Your task to perform on an android device: turn on improve location accuracy Image 0: 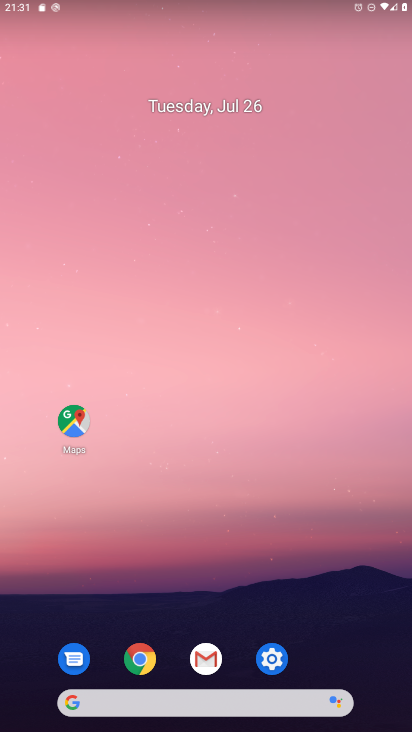
Step 0: press home button
Your task to perform on an android device: turn on improve location accuracy Image 1: 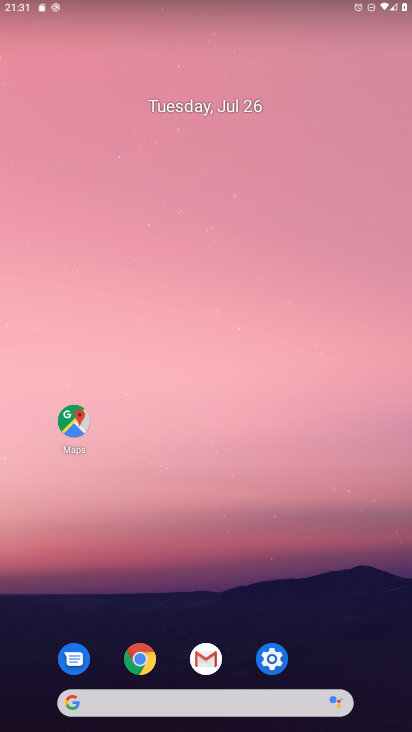
Step 1: click (271, 647)
Your task to perform on an android device: turn on improve location accuracy Image 2: 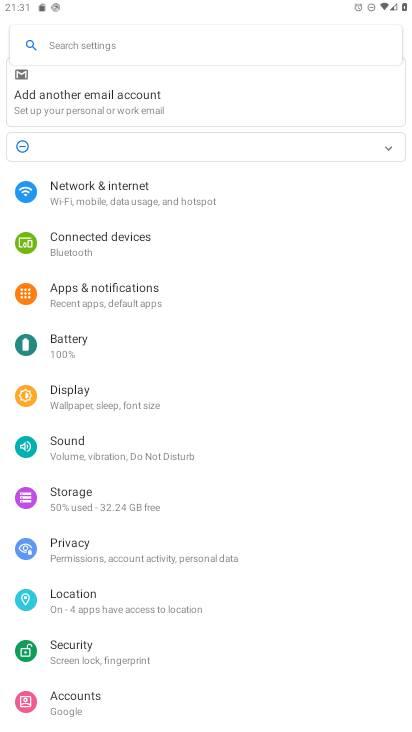
Step 2: click (104, 43)
Your task to perform on an android device: turn on improve location accuracy Image 3: 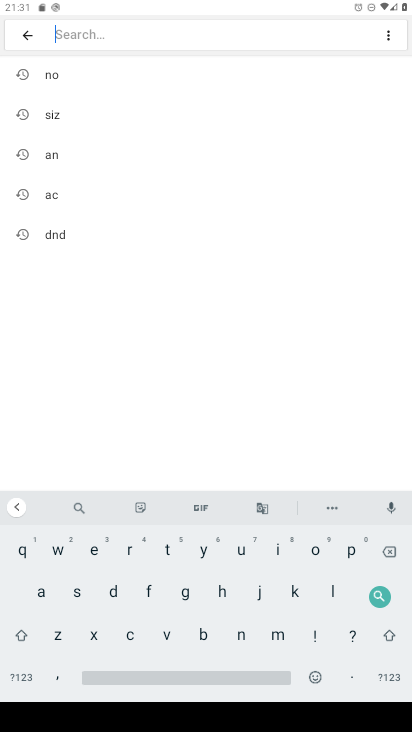
Step 3: click (37, 587)
Your task to perform on an android device: turn on improve location accuracy Image 4: 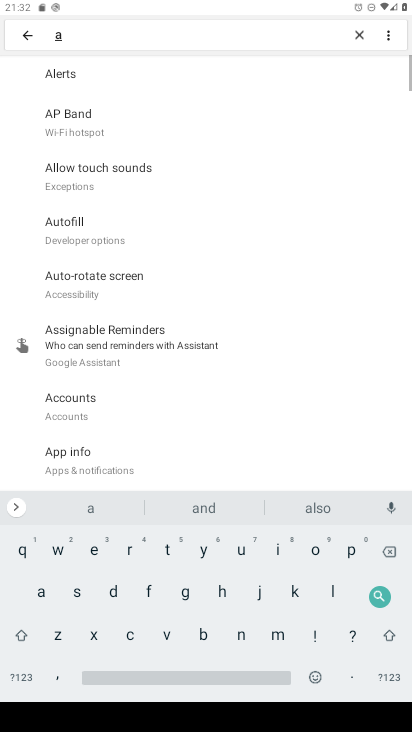
Step 4: click (121, 634)
Your task to perform on an android device: turn on improve location accuracy Image 5: 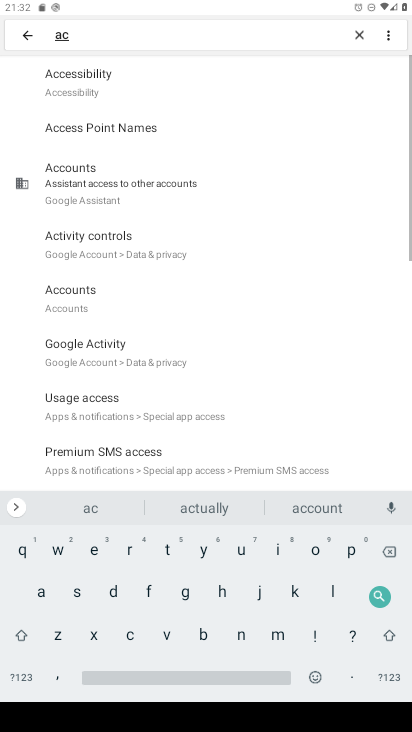
Step 5: click (123, 78)
Your task to perform on an android device: turn on improve location accuracy Image 6: 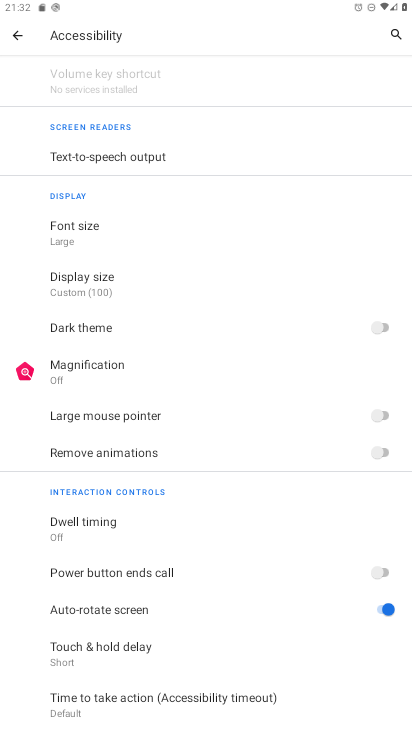
Step 6: click (16, 45)
Your task to perform on an android device: turn on improve location accuracy Image 7: 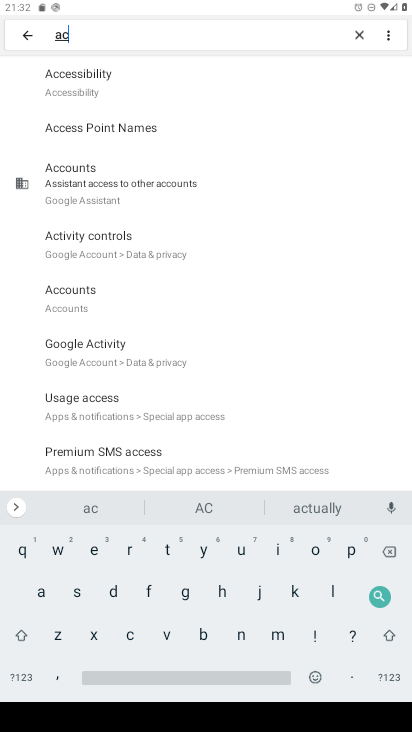
Step 7: click (353, 37)
Your task to perform on an android device: turn on improve location accuracy Image 8: 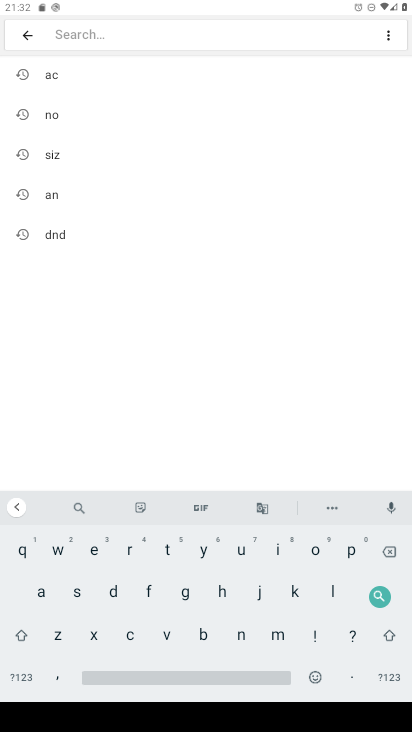
Step 8: click (337, 581)
Your task to perform on an android device: turn on improve location accuracy Image 9: 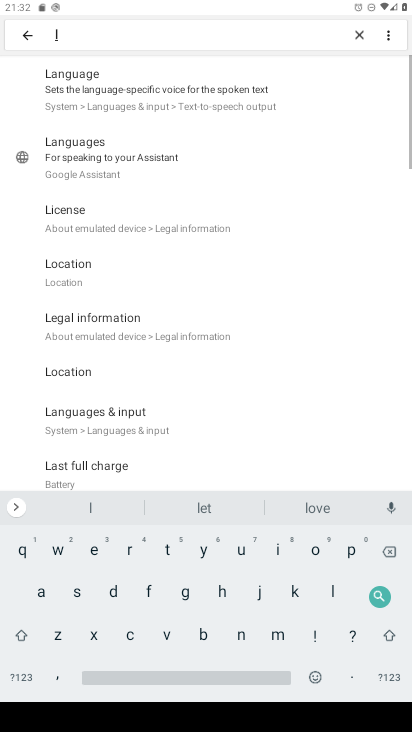
Step 9: click (313, 546)
Your task to perform on an android device: turn on improve location accuracy Image 10: 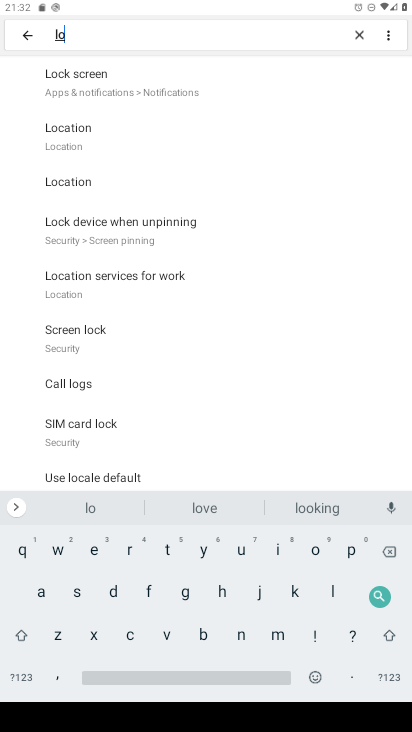
Step 10: click (92, 139)
Your task to perform on an android device: turn on improve location accuracy Image 11: 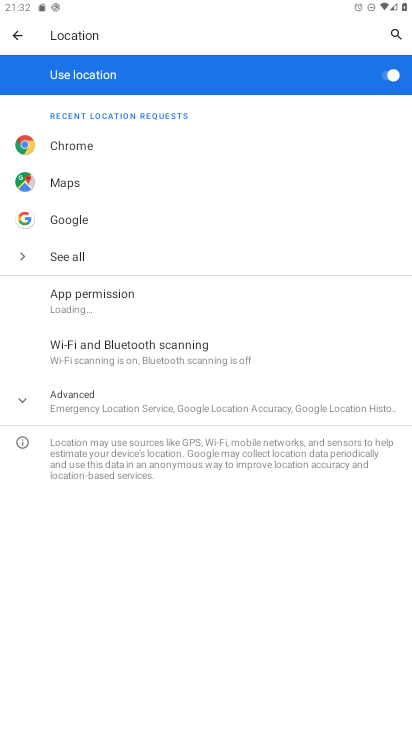
Step 11: click (52, 399)
Your task to perform on an android device: turn on improve location accuracy Image 12: 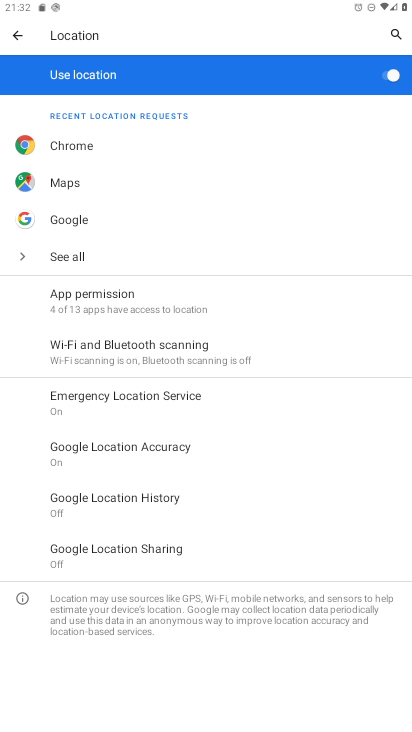
Step 12: click (151, 449)
Your task to perform on an android device: turn on improve location accuracy Image 13: 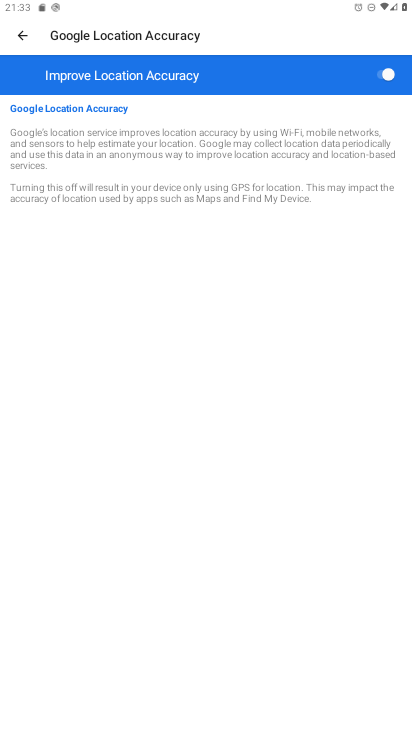
Step 13: task complete